Your task to perform on an android device: Clear all items from cart on costco.com. Image 0: 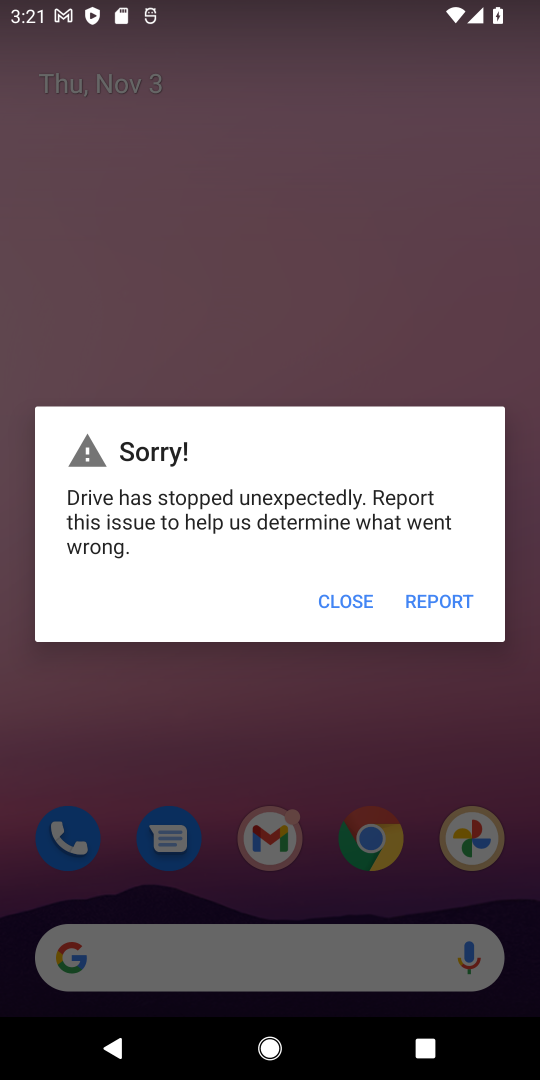
Step 0: press home button
Your task to perform on an android device: Clear all items from cart on costco.com. Image 1: 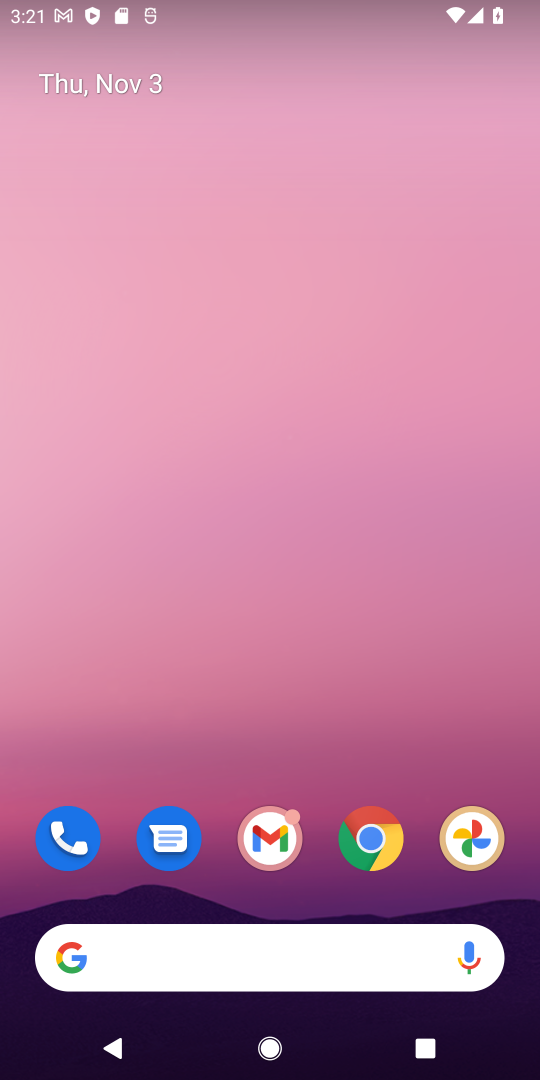
Step 1: drag from (331, 874) to (290, 32)
Your task to perform on an android device: Clear all items from cart on costco.com. Image 2: 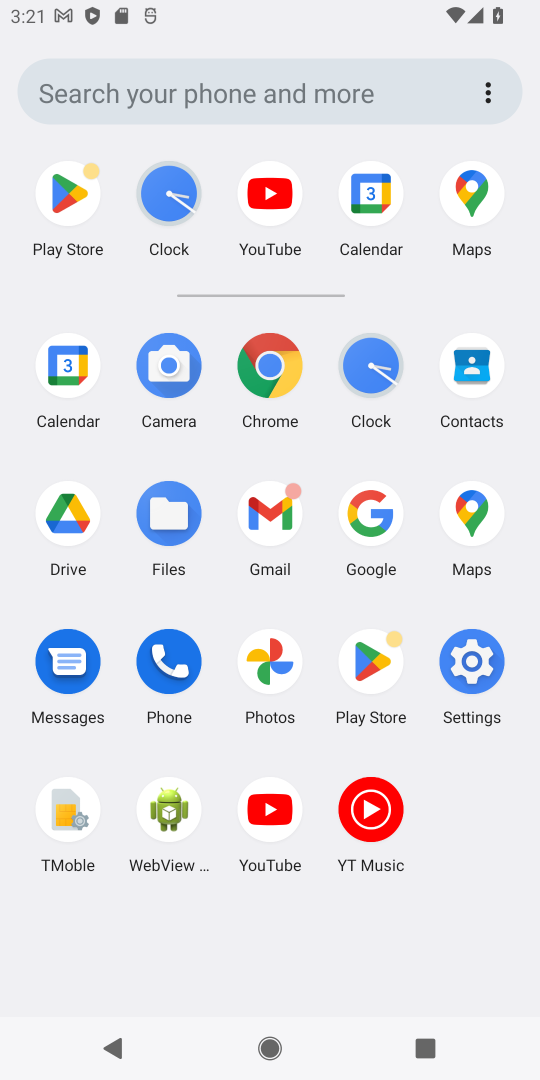
Step 2: click (277, 367)
Your task to perform on an android device: Clear all items from cart on costco.com. Image 3: 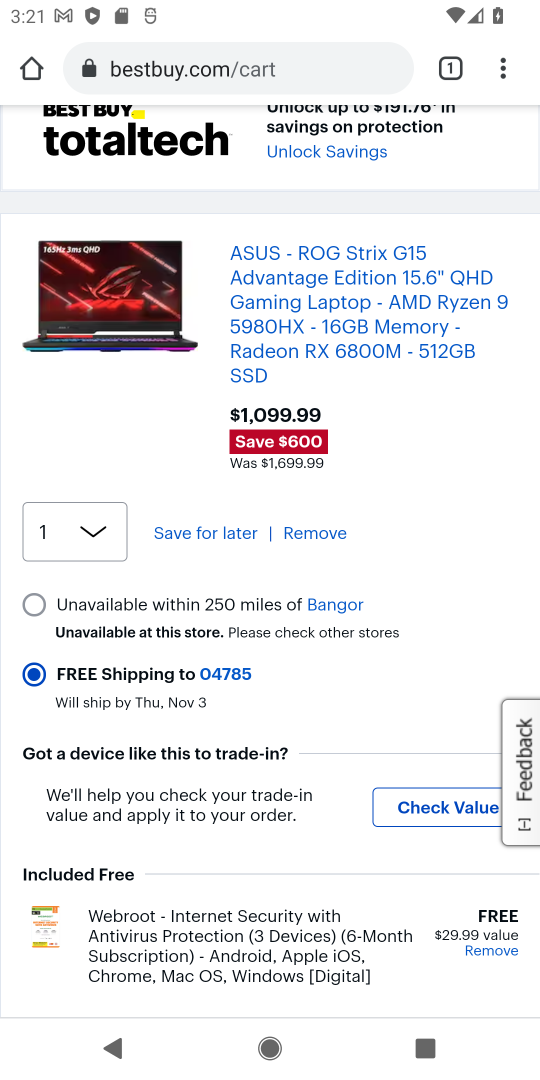
Step 3: click (300, 74)
Your task to perform on an android device: Clear all items from cart on costco.com. Image 4: 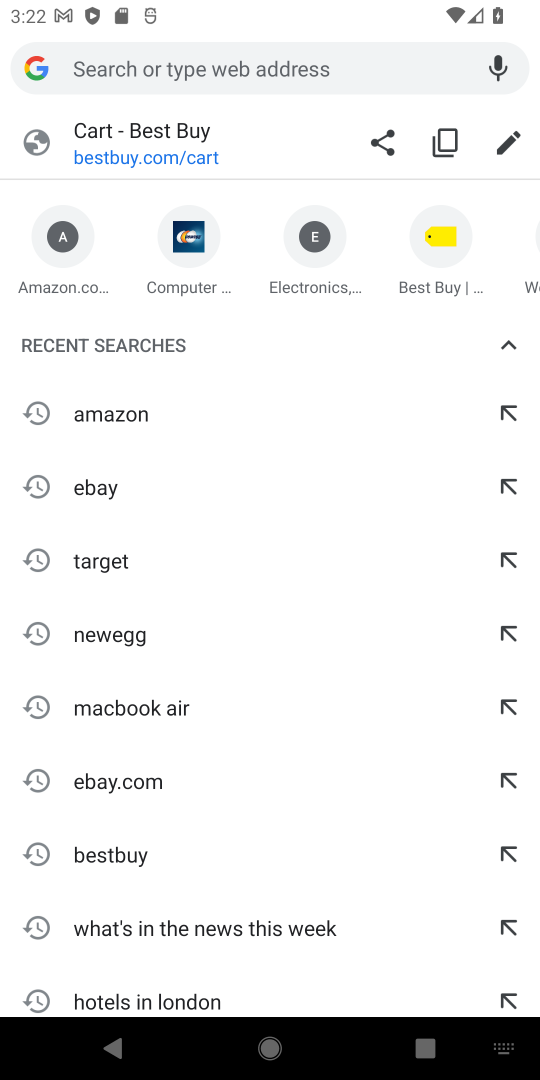
Step 4: type "costco.com"
Your task to perform on an android device: Clear all items from cart on costco.com. Image 5: 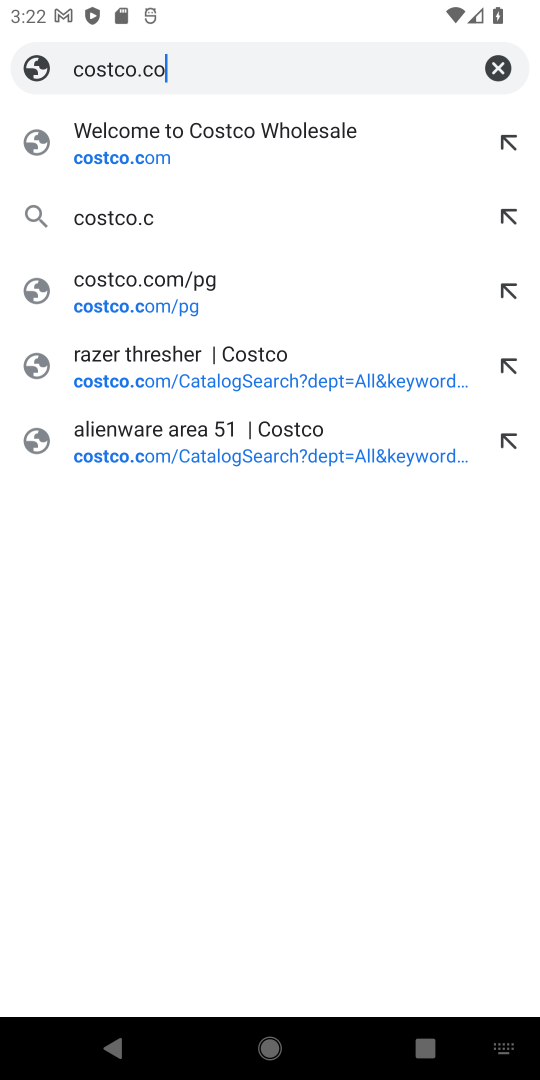
Step 5: press enter
Your task to perform on an android device: Clear all items from cart on costco.com. Image 6: 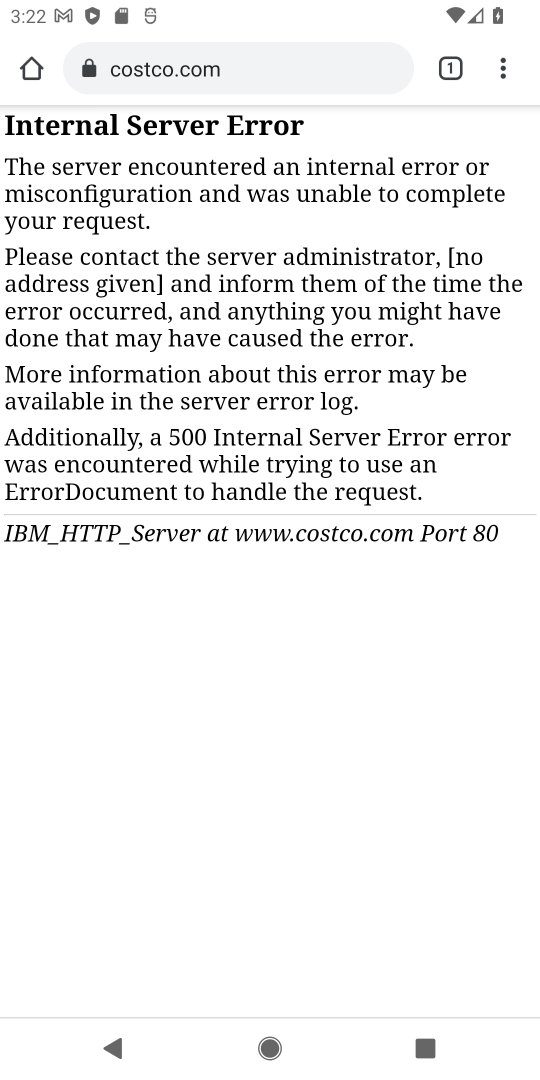
Step 6: click (375, 65)
Your task to perform on an android device: Clear all items from cart on costco.com. Image 7: 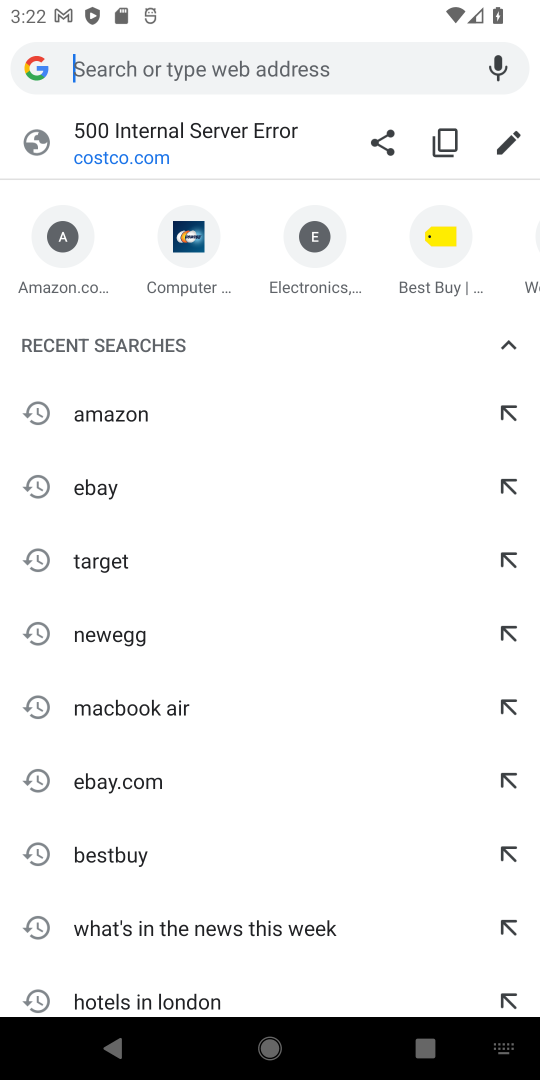
Step 7: type "costco.com"
Your task to perform on an android device: Clear all items from cart on costco.com. Image 8: 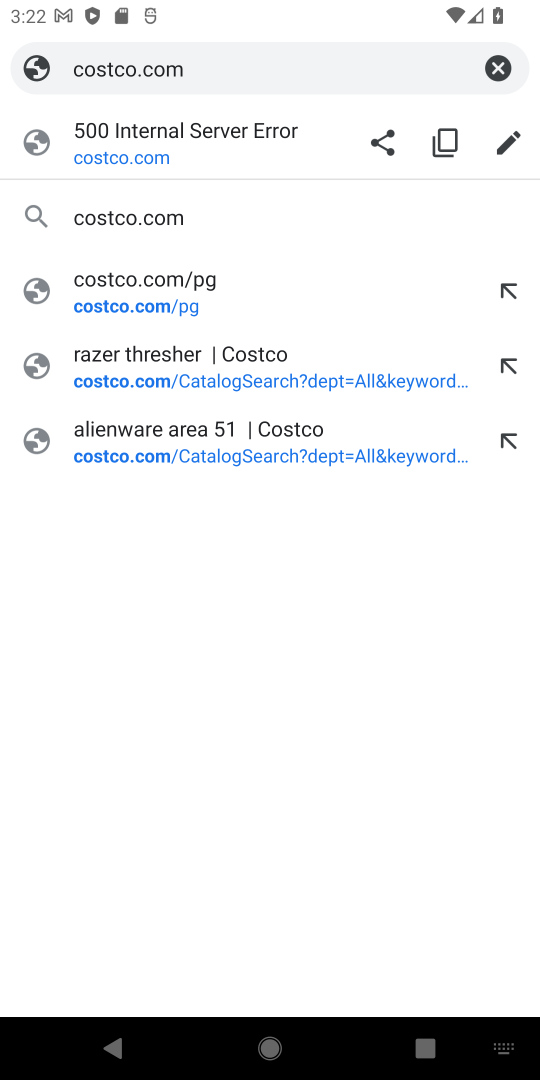
Step 8: press enter
Your task to perform on an android device: Clear all items from cart on costco.com. Image 9: 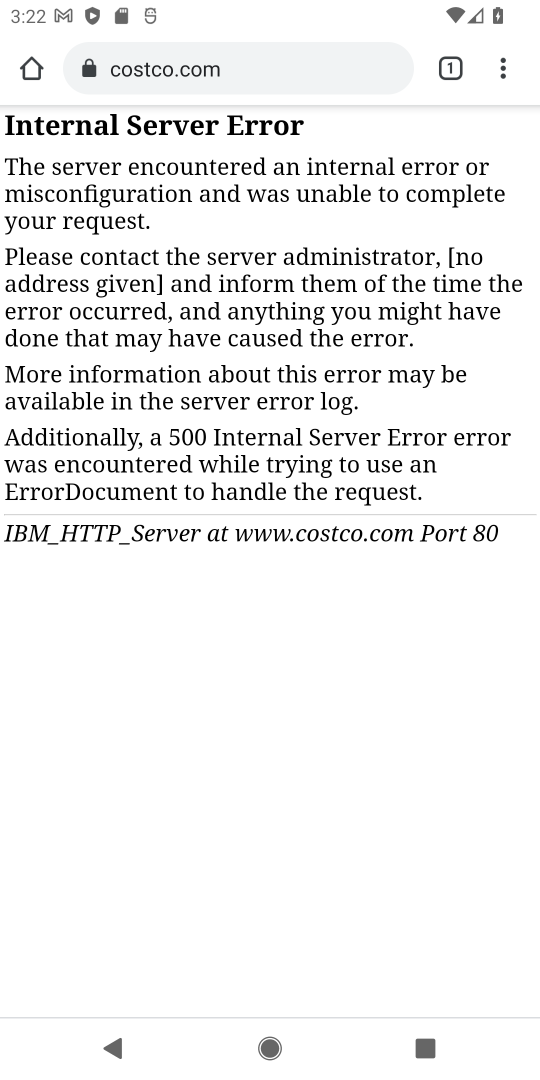
Step 9: task complete